Your task to perform on an android device: Search for flights from Buenos aires to Tokyo Image 0: 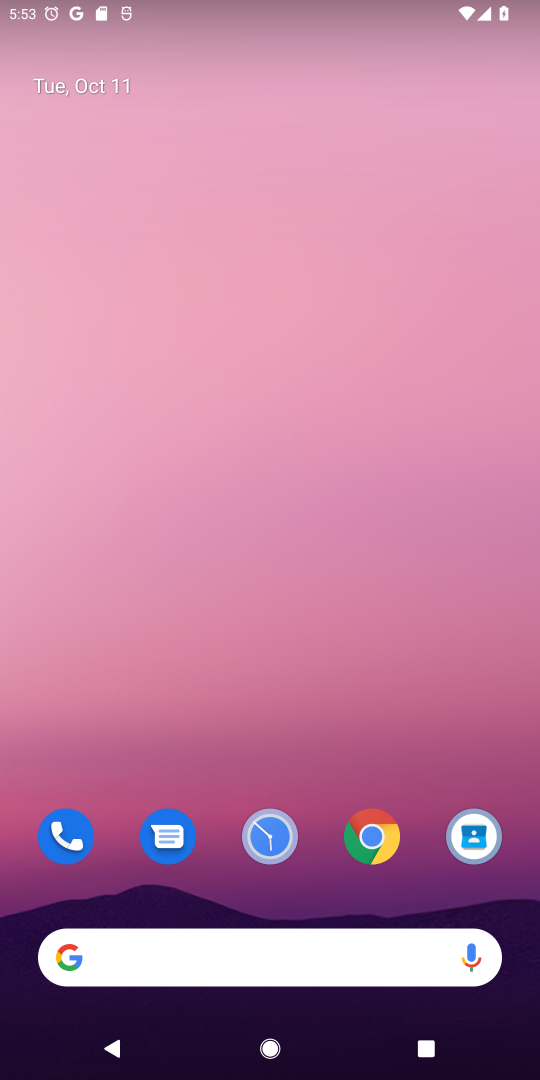
Step 0: click (345, 930)
Your task to perform on an android device: Search for flights from Buenos aires to Tokyo Image 1: 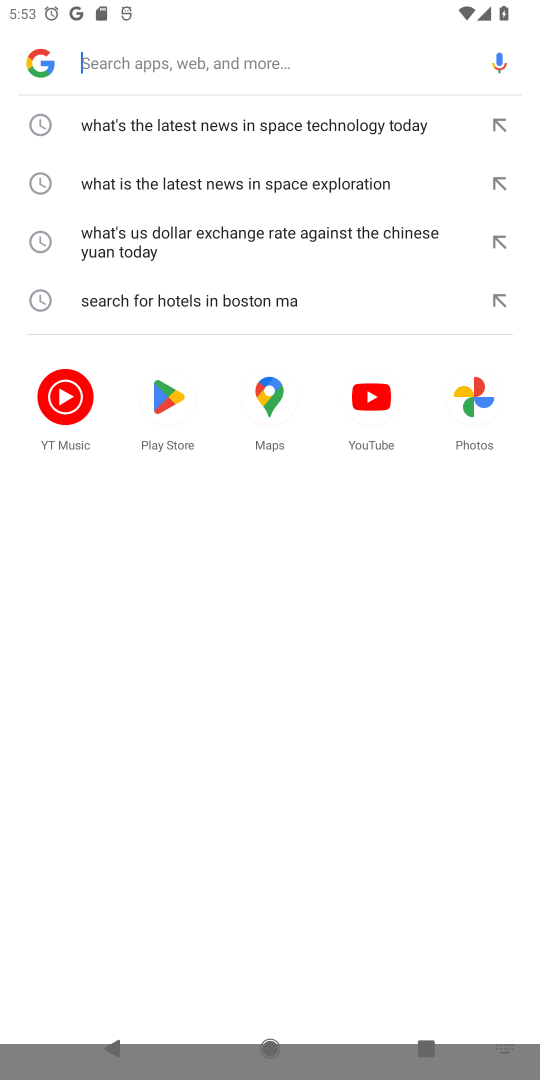
Step 1: click (337, 937)
Your task to perform on an android device: Search for flights from Buenos aires to Tokyo Image 2: 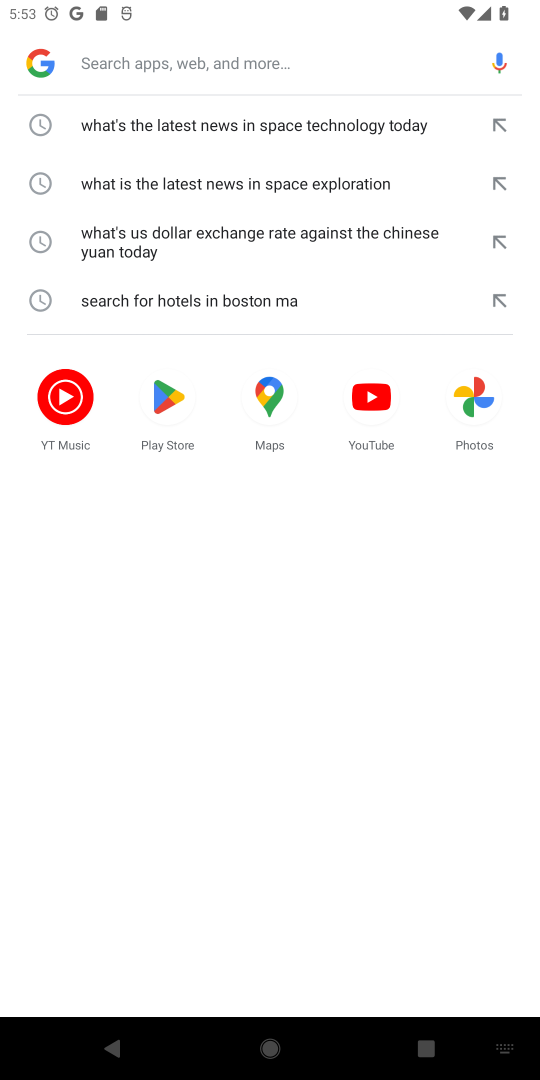
Step 2: type "flights from Buenos aires to Tokyo"
Your task to perform on an android device: Search for flights from Buenos aires to Tokyo Image 3: 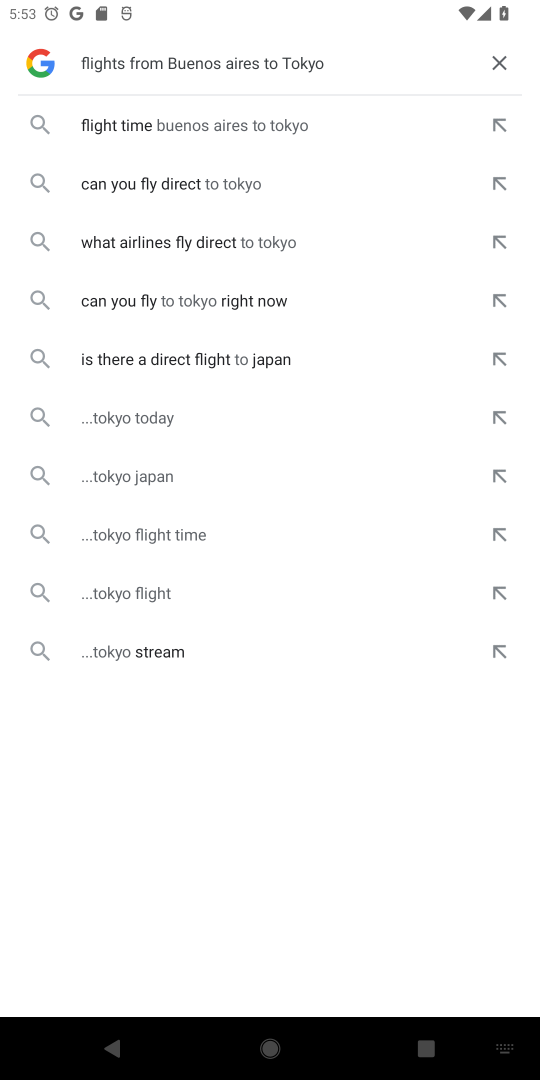
Step 3: click (255, 151)
Your task to perform on an android device: Search for flights from Buenos aires to Tokyo Image 4: 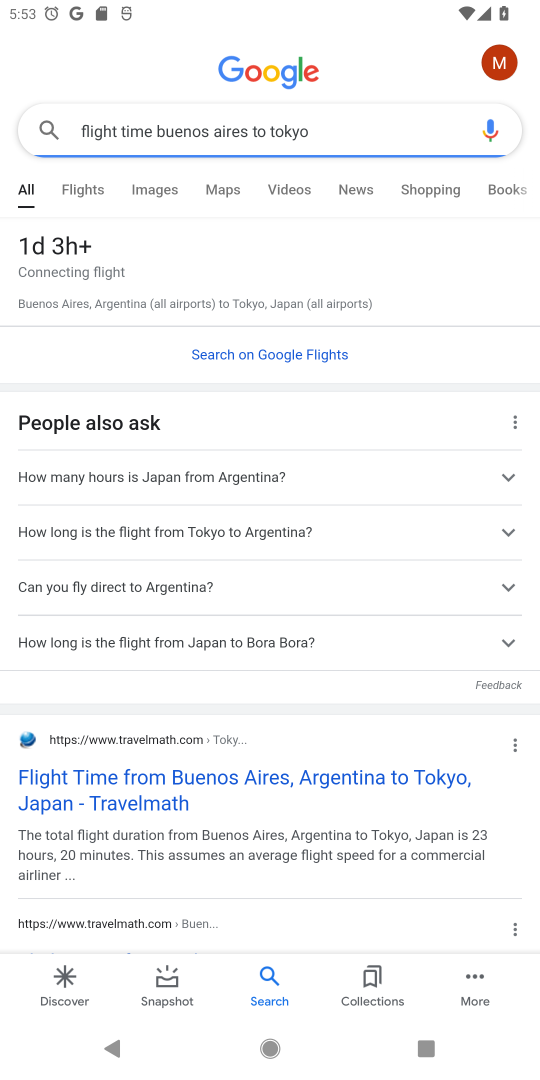
Step 4: task complete